Your task to perform on an android device: find which apps use the phone's location Image 0: 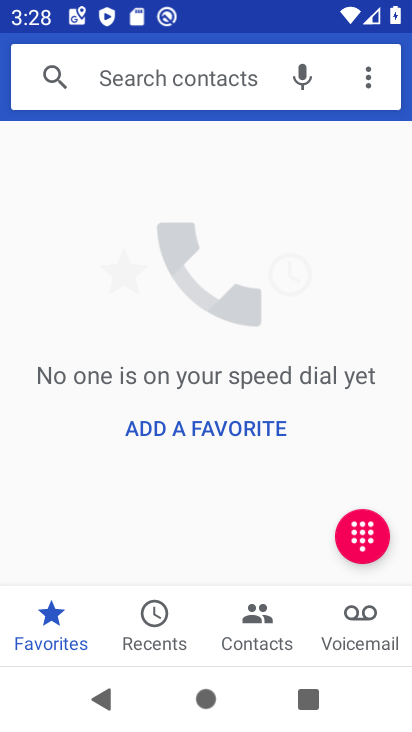
Step 0: press home button
Your task to perform on an android device: find which apps use the phone's location Image 1: 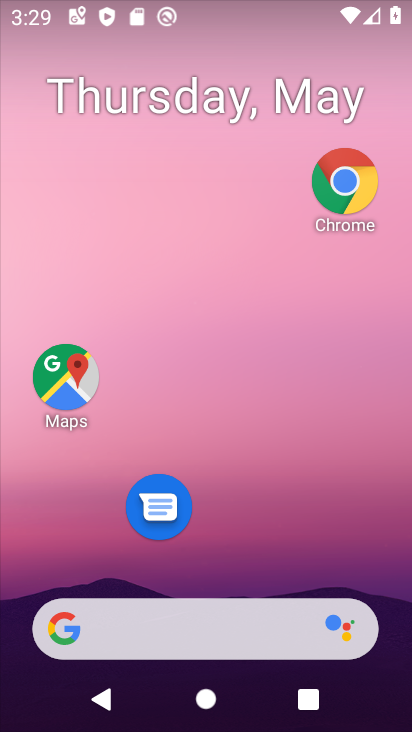
Step 1: drag from (295, 512) to (281, 62)
Your task to perform on an android device: find which apps use the phone's location Image 2: 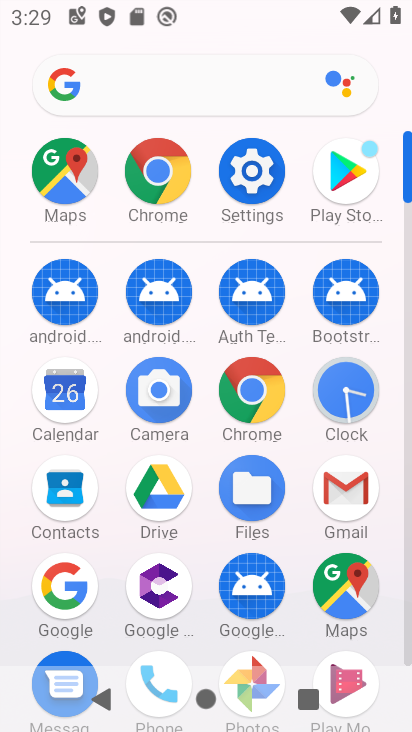
Step 2: drag from (194, 567) to (216, 200)
Your task to perform on an android device: find which apps use the phone's location Image 3: 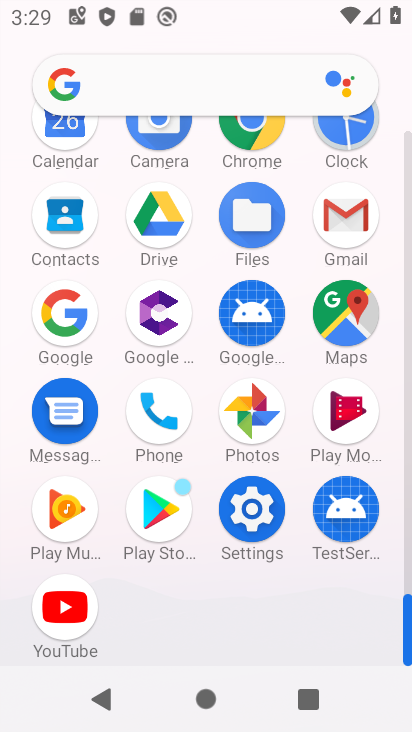
Step 3: click (154, 420)
Your task to perform on an android device: find which apps use the phone's location Image 4: 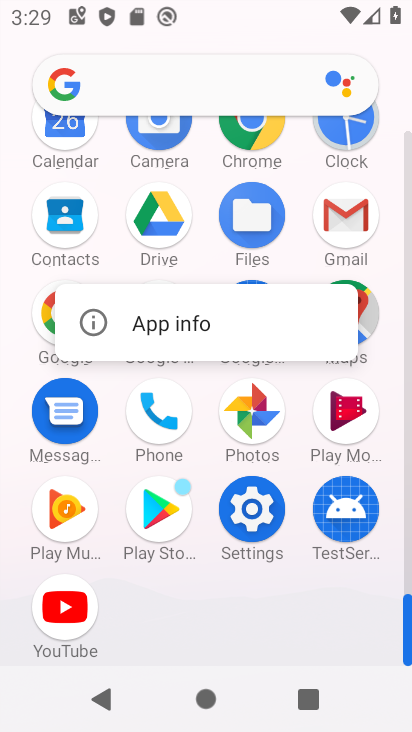
Step 4: click (160, 333)
Your task to perform on an android device: find which apps use the phone's location Image 5: 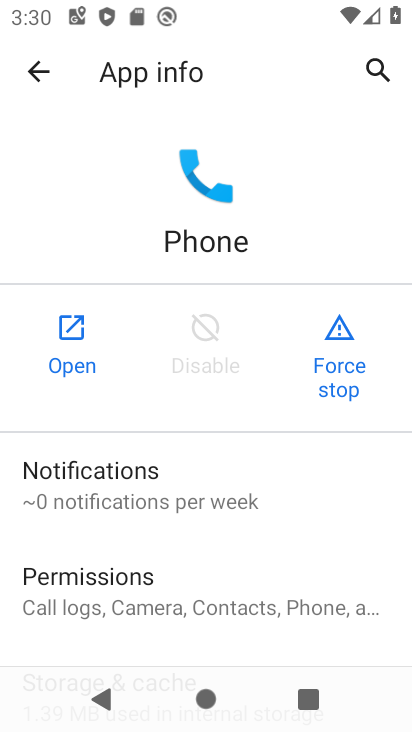
Step 5: click (141, 577)
Your task to perform on an android device: find which apps use the phone's location Image 6: 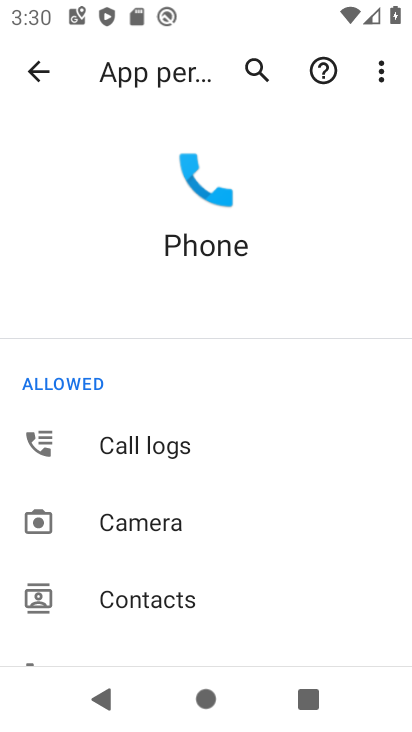
Step 6: drag from (233, 546) to (251, 279)
Your task to perform on an android device: find which apps use the phone's location Image 7: 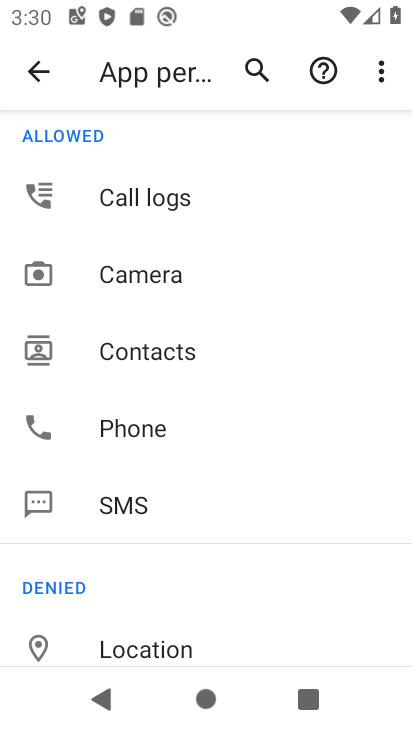
Step 7: drag from (192, 608) to (224, 388)
Your task to perform on an android device: find which apps use the phone's location Image 8: 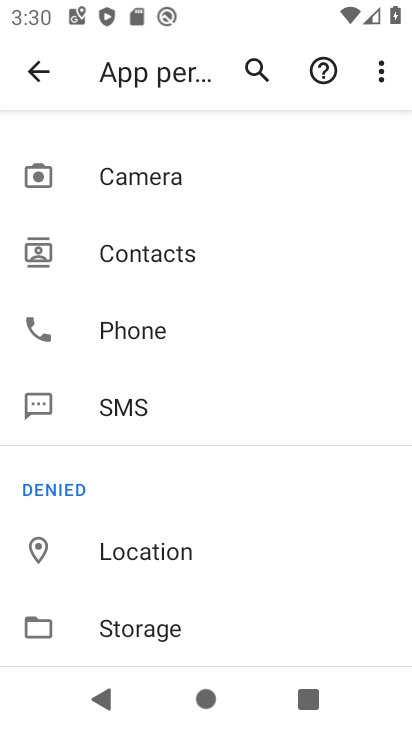
Step 8: click (149, 543)
Your task to perform on an android device: find which apps use the phone's location Image 9: 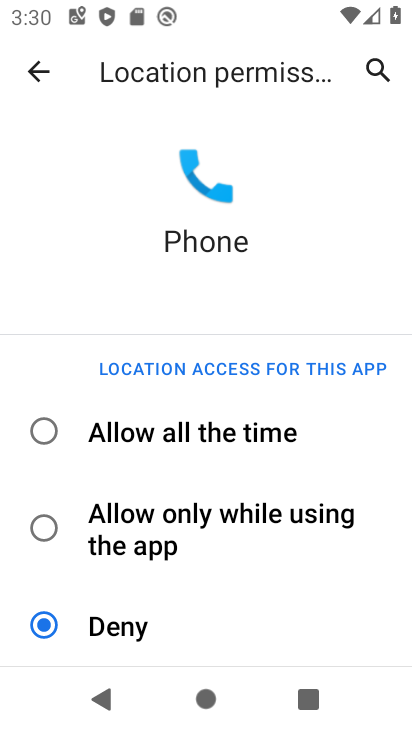
Step 9: task complete